Your task to perform on an android device: turn off javascript in the chrome app Image 0: 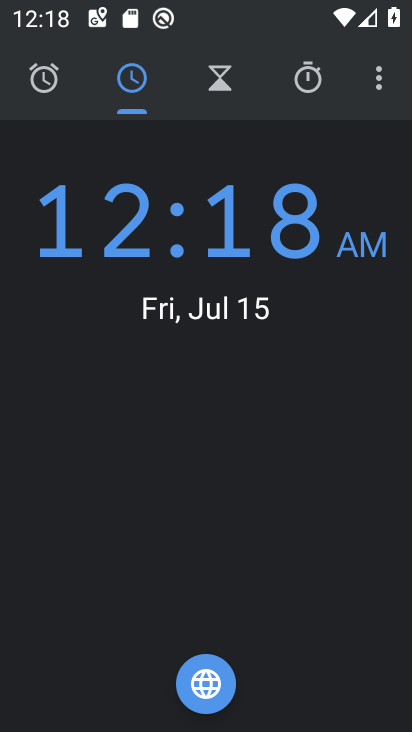
Step 0: press home button
Your task to perform on an android device: turn off javascript in the chrome app Image 1: 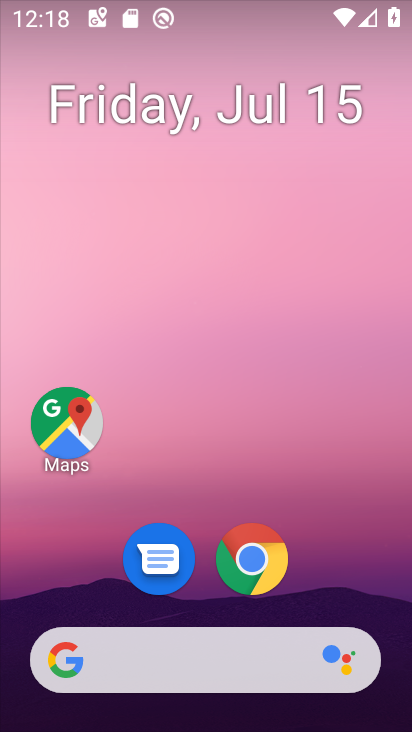
Step 1: drag from (381, 595) to (398, 129)
Your task to perform on an android device: turn off javascript in the chrome app Image 2: 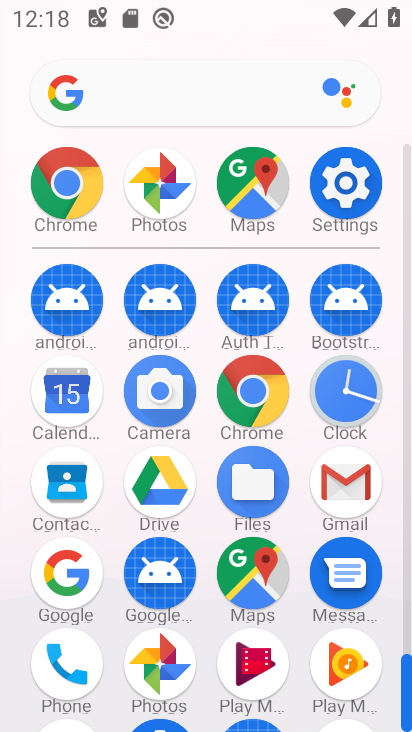
Step 2: click (260, 387)
Your task to perform on an android device: turn off javascript in the chrome app Image 3: 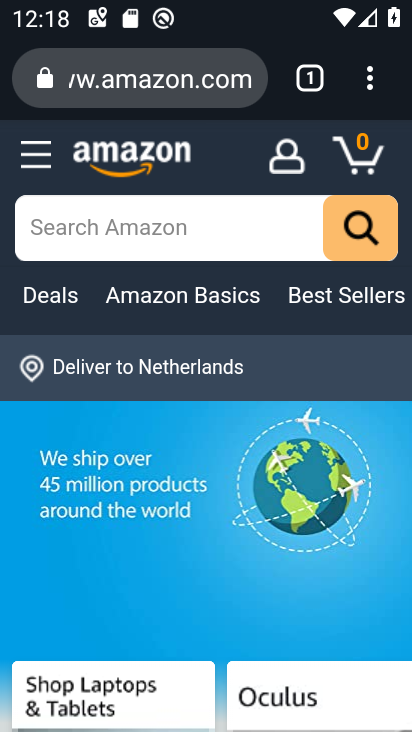
Step 3: click (369, 91)
Your task to perform on an android device: turn off javascript in the chrome app Image 4: 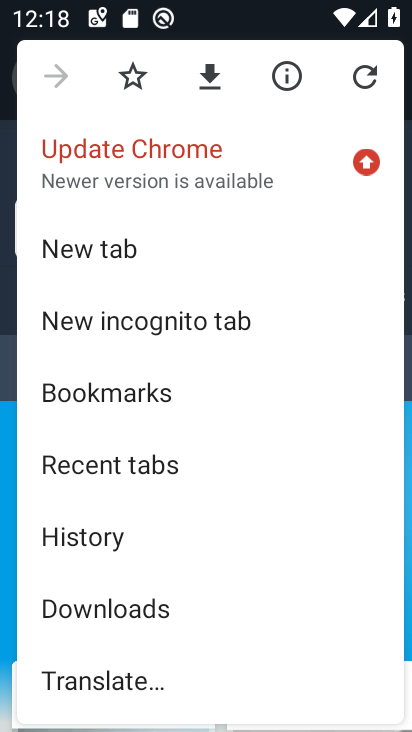
Step 4: drag from (340, 492) to (361, 302)
Your task to perform on an android device: turn off javascript in the chrome app Image 5: 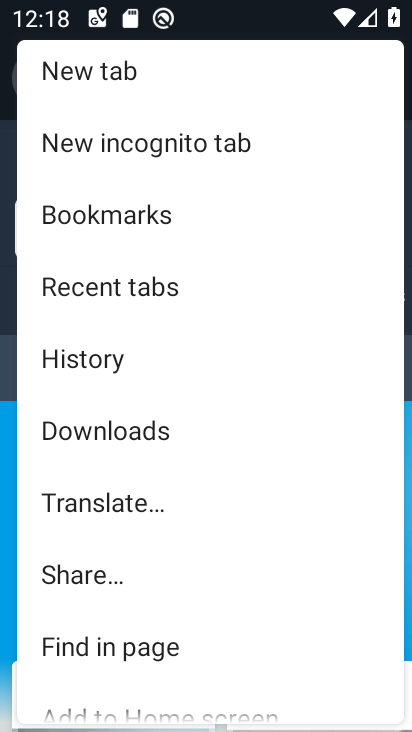
Step 5: drag from (315, 536) to (316, 406)
Your task to perform on an android device: turn off javascript in the chrome app Image 6: 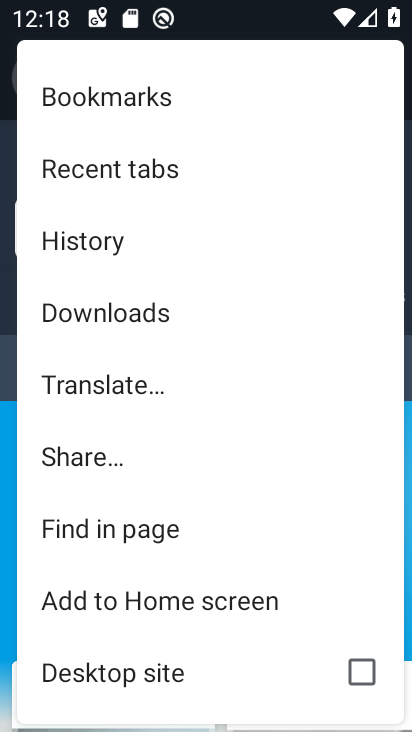
Step 6: drag from (275, 532) to (310, 346)
Your task to perform on an android device: turn off javascript in the chrome app Image 7: 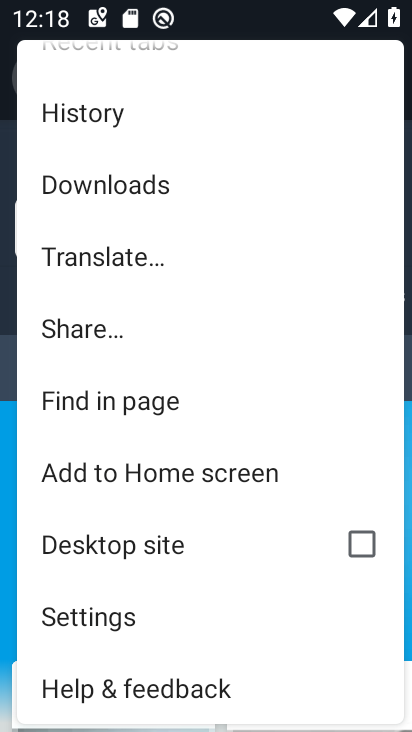
Step 7: click (167, 630)
Your task to perform on an android device: turn off javascript in the chrome app Image 8: 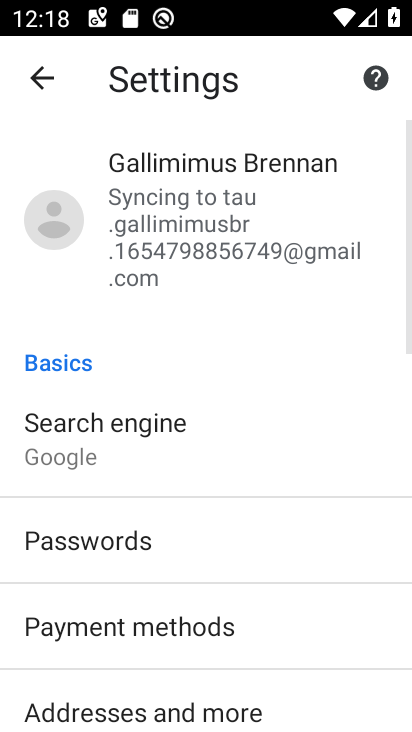
Step 8: drag from (331, 524) to (338, 436)
Your task to perform on an android device: turn off javascript in the chrome app Image 9: 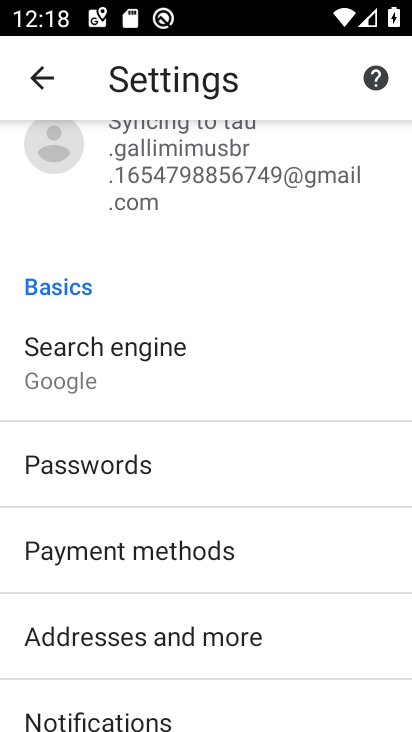
Step 9: drag from (353, 576) to (345, 473)
Your task to perform on an android device: turn off javascript in the chrome app Image 10: 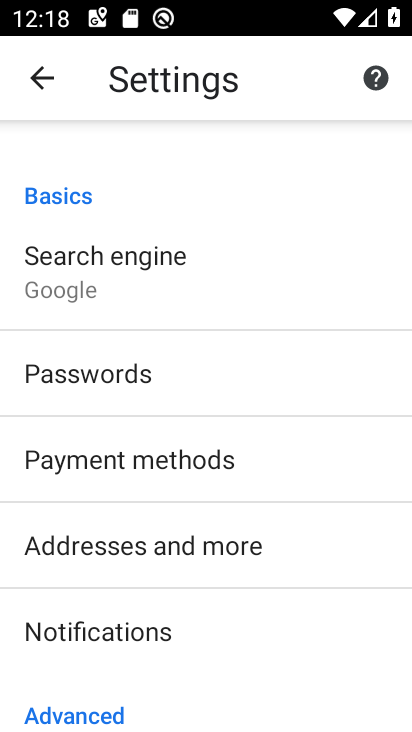
Step 10: drag from (347, 601) to (330, 485)
Your task to perform on an android device: turn off javascript in the chrome app Image 11: 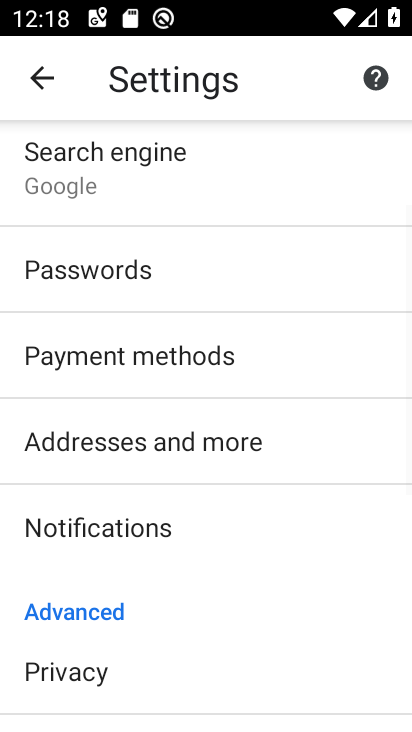
Step 11: drag from (325, 611) to (320, 511)
Your task to perform on an android device: turn off javascript in the chrome app Image 12: 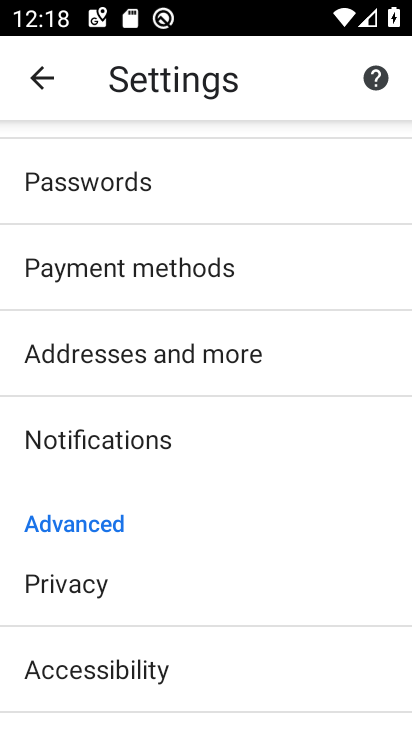
Step 12: drag from (313, 615) to (305, 506)
Your task to perform on an android device: turn off javascript in the chrome app Image 13: 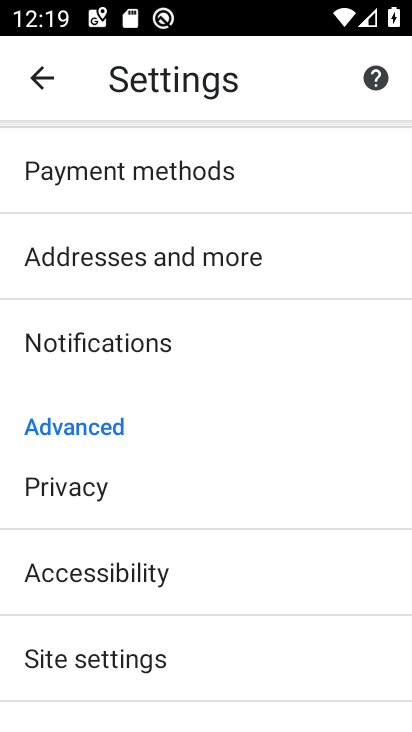
Step 13: drag from (308, 629) to (303, 454)
Your task to perform on an android device: turn off javascript in the chrome app Image 14: 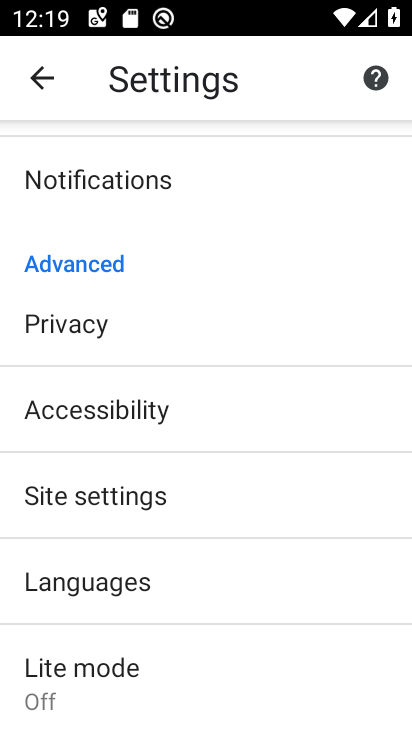
Step 14: drag from (293, 609) to (295, 464)
Your task to perform on an android device: turn off javascript in the chrome app Image 15: 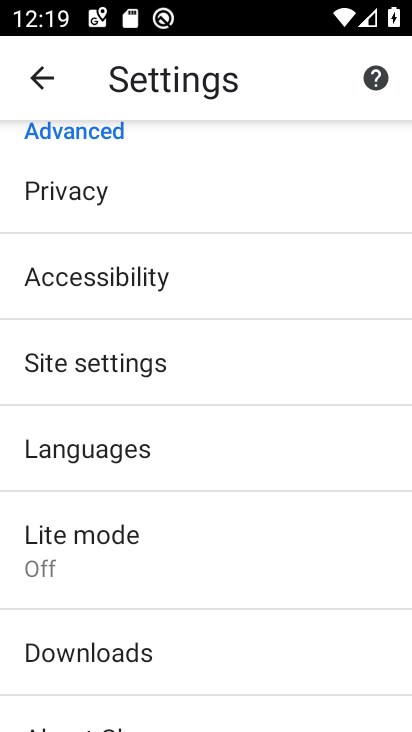
Step 15: click (291, 366)
Your task to perform on an android device: turn off javascript in the chrome app Image 16: 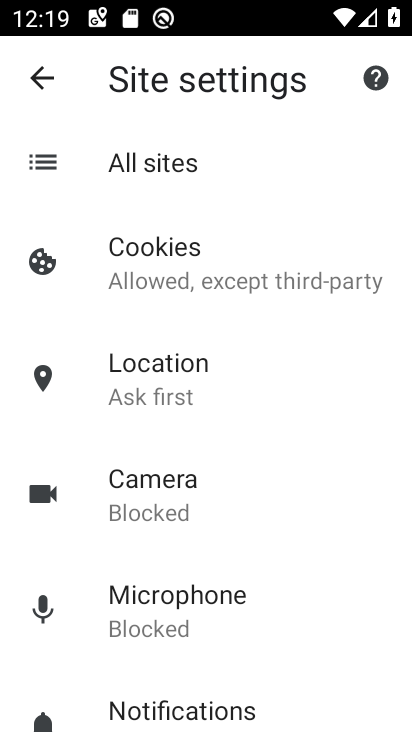
Step 16: drag from (344, 550) to (348, 468)
Your task to perform on an android device: turn off javascript in the chrome app Image 17: 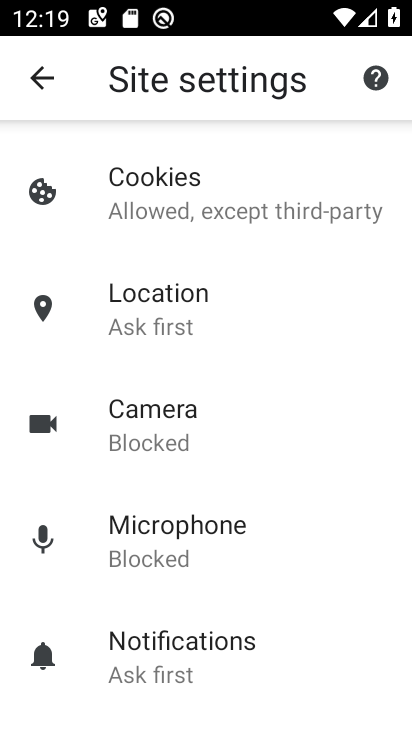
Step 17: drag from (317, 590) to (320, 496)
Your task to perform on an android device: turn off javascript in the chrome app Image 18: 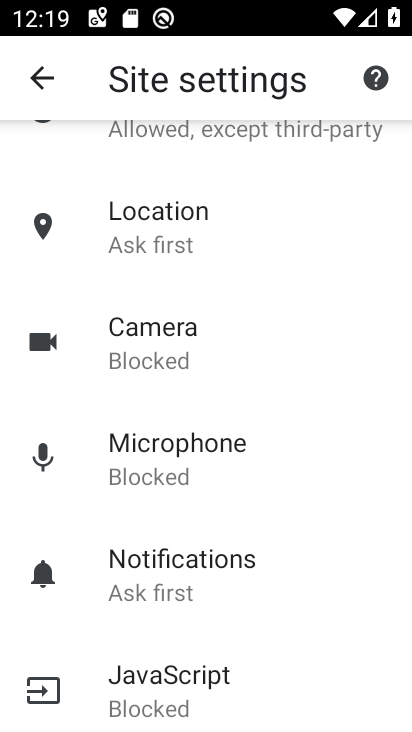
Step 18: drag from (320, 593) to (320, 512)
Your task to perform on an android device: turn off javascript in the chrome app Image 19: 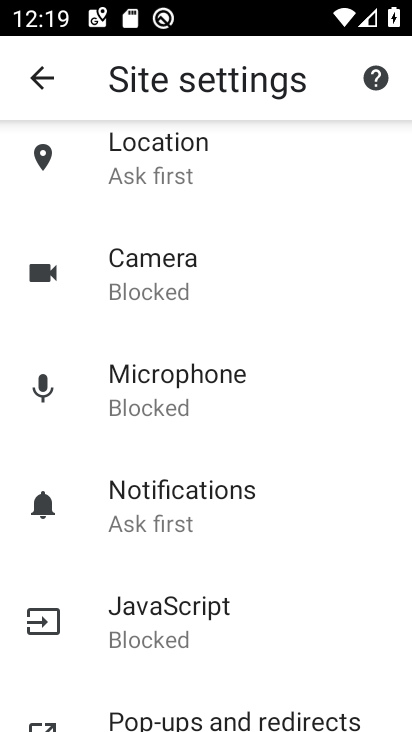
Step 19: click (283, 632)
Your task to perform on an android device: turn off javascript in the chrome app Image 20: 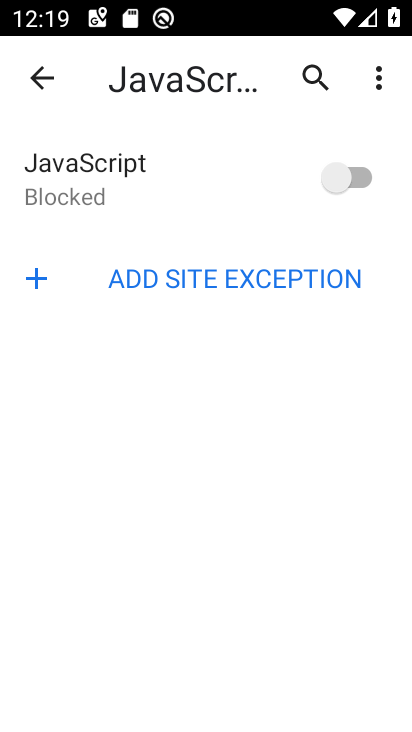
Step 20: task complete